Your task to perform on an android device: Open my contact list Image 0: 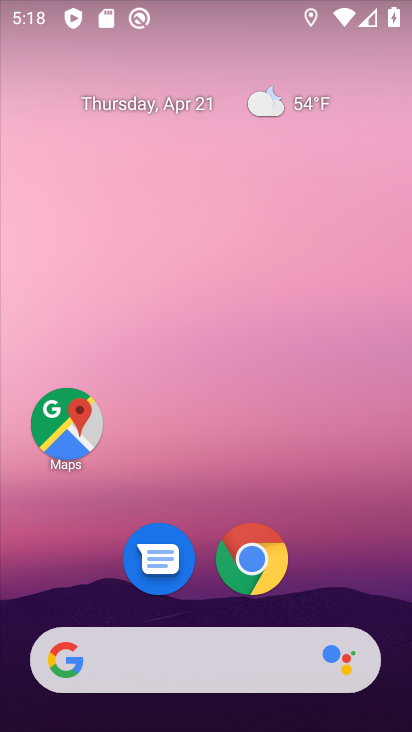
Step 0: drag from (353, 530) to (367, 22)
Your task to perform on an android device: Open my contact list Image 1: 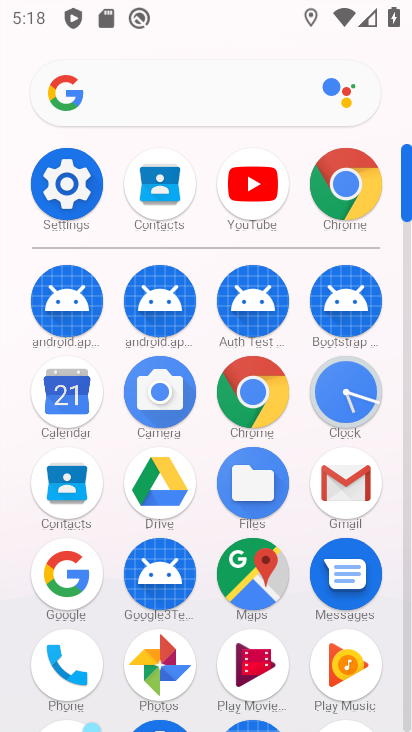
Step 1: click (59, 500)
Your task to perform on an android device: Open my contact list Image 2: 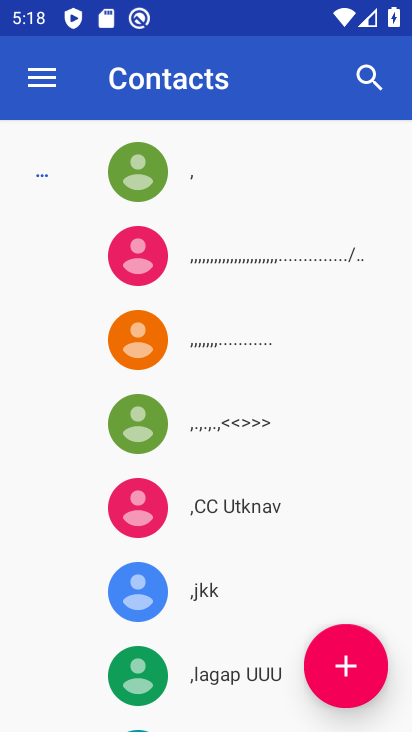
Step 2: task complete